Your task to perform on an android device: Go to Yahoo.com Image 0: 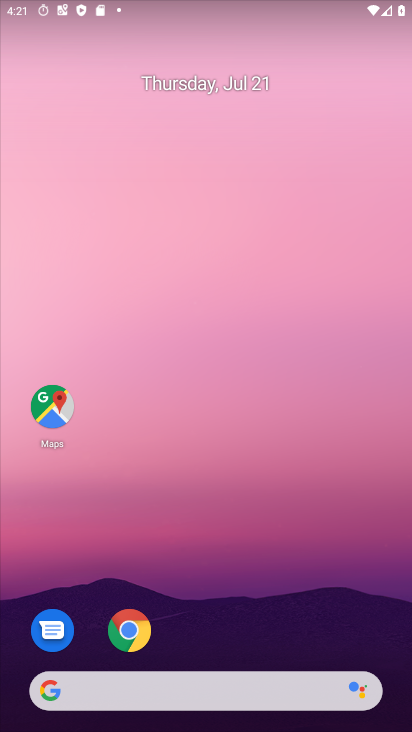
Step 0: drag from (206, 688) to (267, 55)
Your task to perform on an android device: Go to Yahoo.com Image 1: 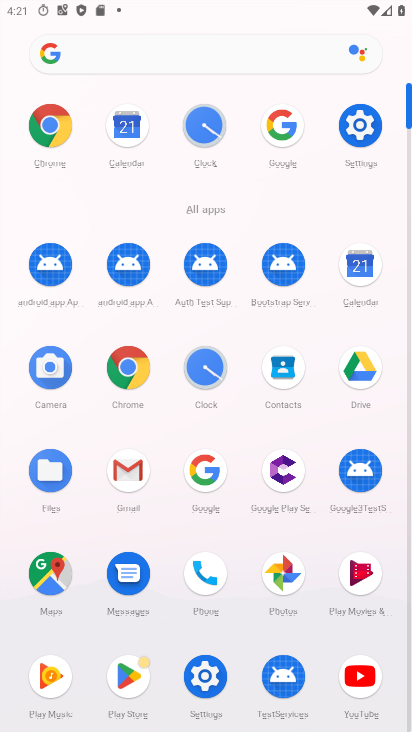
Step 1: click (48, 125)
Your task to perform on an android device: Go to Yahoo.com Image 2: 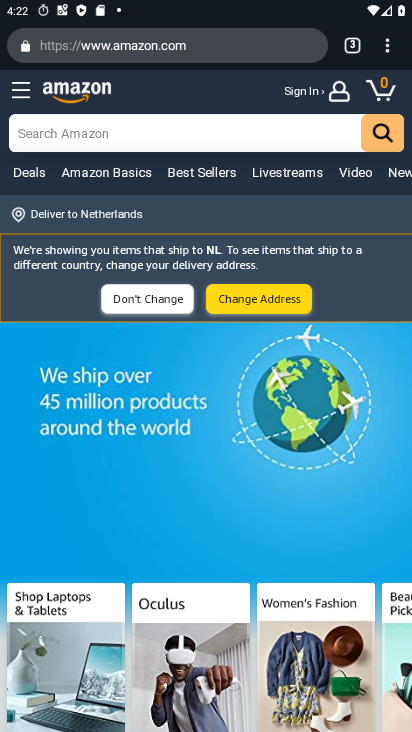
Step 2: click (220, 50)
Your task to perform on an android device: Go to Yahoo.com Image 3: 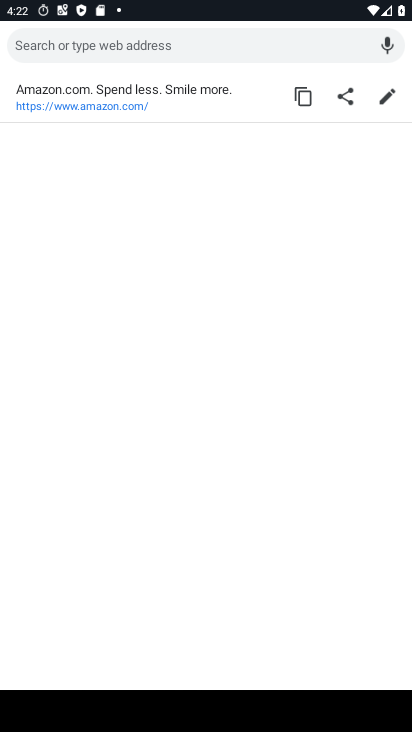
Step 3: type "Yahoo.com"
Your task to perform on an android device: Go to Yahoo.com Image 4: 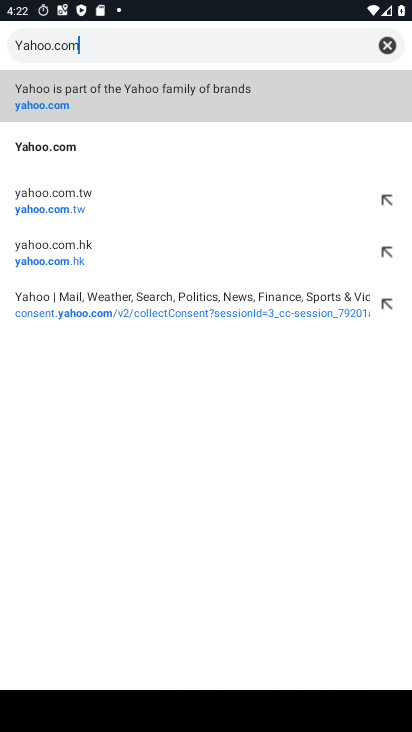
Step 4: click (57, 147)
Your task to perform on an android device: Go to Yahoo.com Image 5: 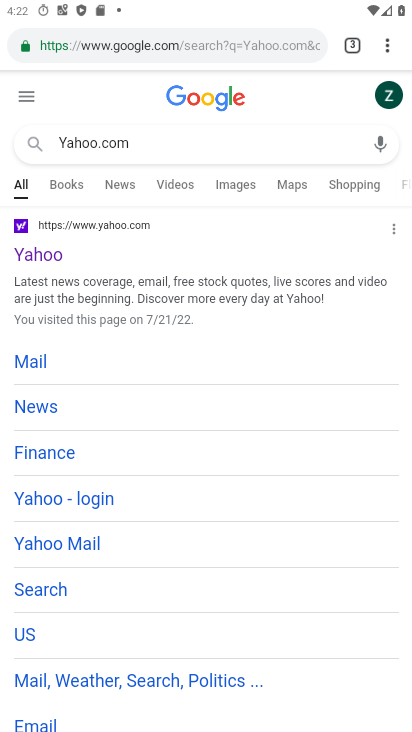
Step 5: click (51, 260)
Your task to perform on an android device: Go to Yahoo.com Image 6: 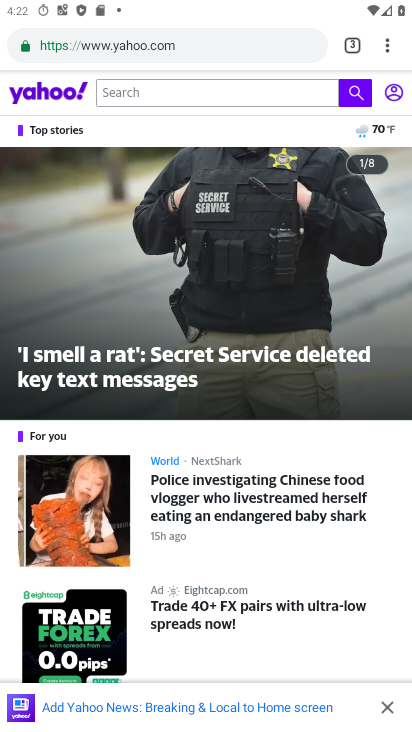
Step 6: task complete